Your task to perform on an android device: Open CNN.com Image 0: 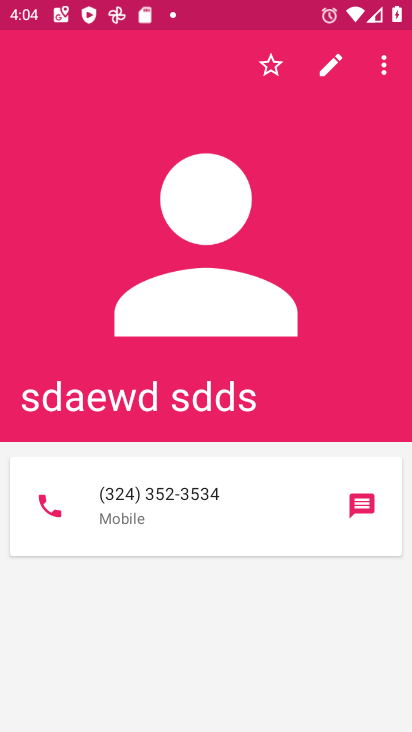
Step 0: press home button
Your task to perform on an android device: Open CNN.com Image 1: 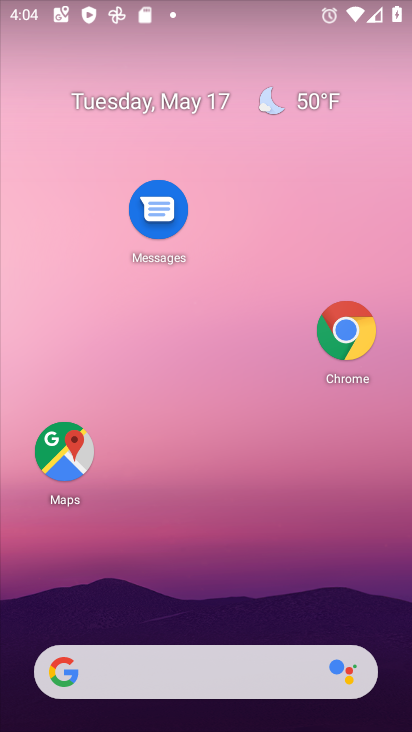
Step 1: click (356, 372)
Your task to perform on an android device: Open CNN.com Image 2: 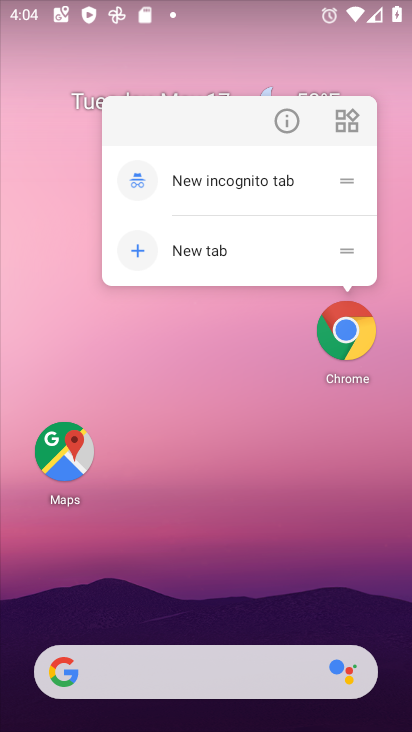
Step 2: click (355, 342)
Your task to perform on an android device: Open CNN.com Image 3: 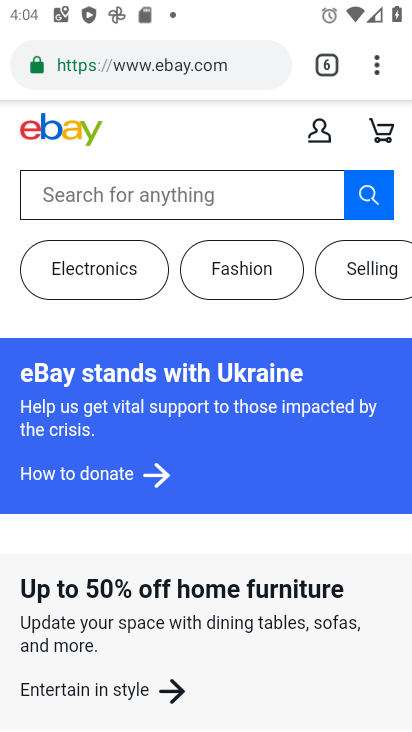
Step 3: click (169, 74)
Your task to perform on an android device: Open CNN.com Image 4: 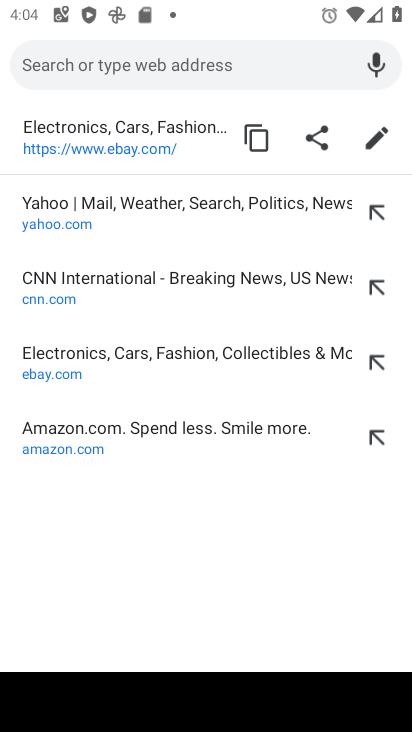
Step 4: type "cnn.com"
Your task to perform on an android device: Open CNN.com Image 5: 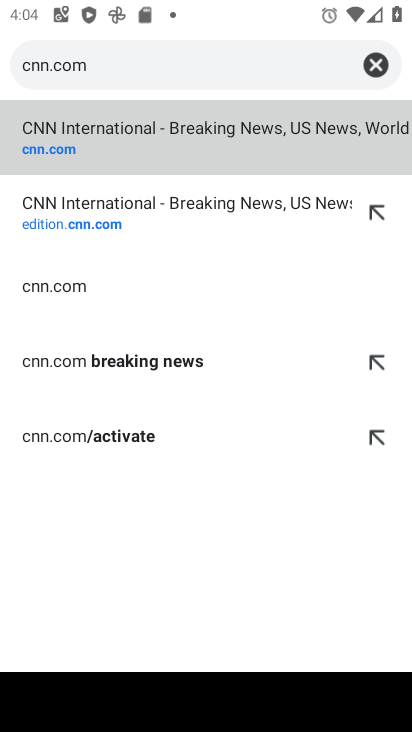
Step 5: click (196, 114)
Your task to perform on an android device: Open CNN.com Image 6: 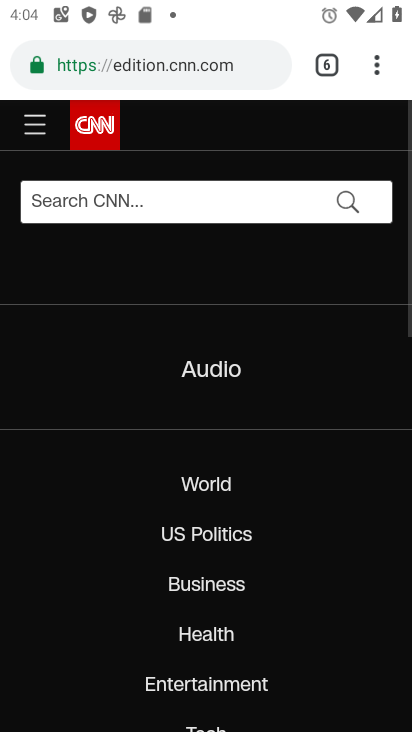
Step 6: task complete